Your task to perform on an android device: Open ESPN.com Image 0: 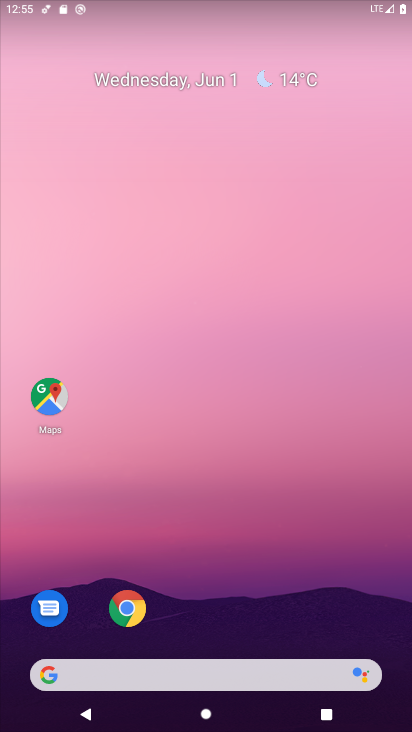
Step 0: click (121, 608)
Your task to perform on an android device: Open ESPN.com Image 1: 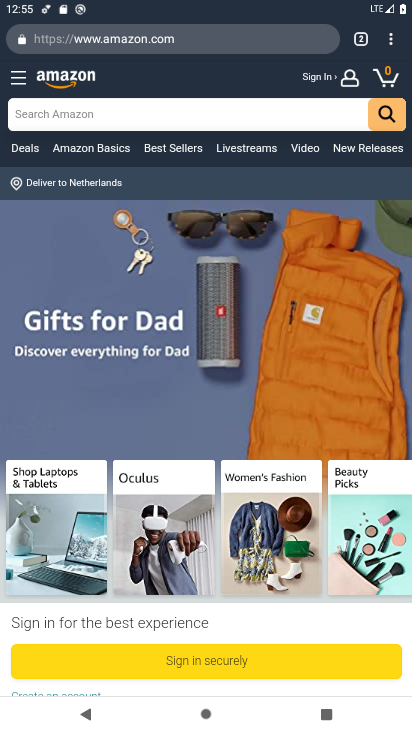
Step 1: click (160, 39)
Your task to perform on an android device: Open ESPN.com Image 2: 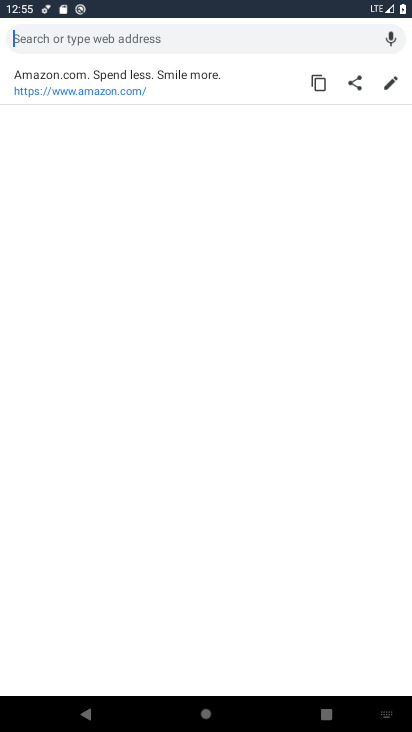
Step 2: type "ESPN.com"
Your task to perform on an android device: Open ESPN.com Image 3: 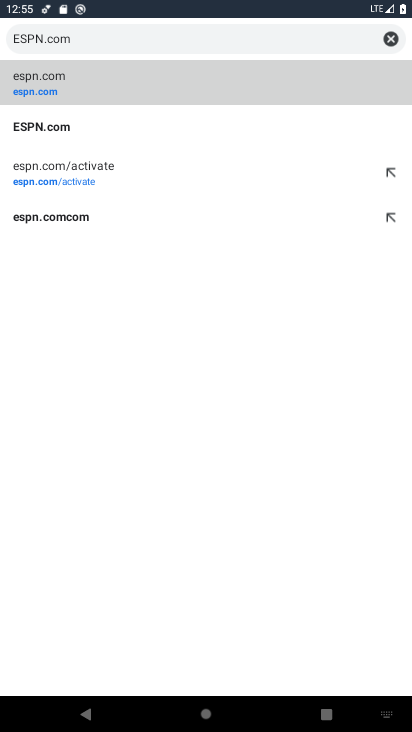
Step 3: click (106, 90)
Your task to perform on an android device: Open ESPN.com Image 4: 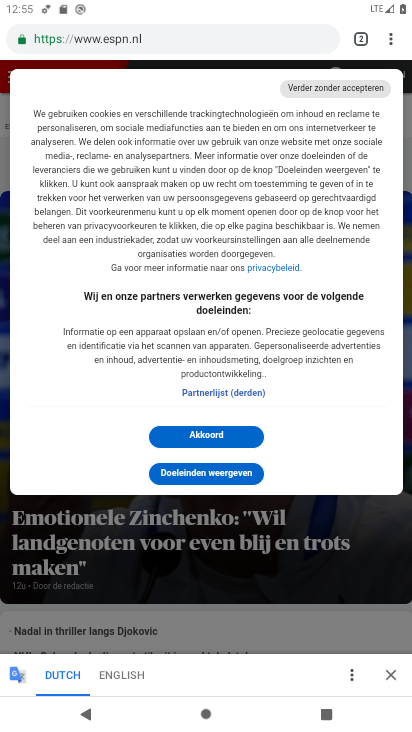
Step 4: task complete